Your task to perform on an android device: Go to settings Image 0: 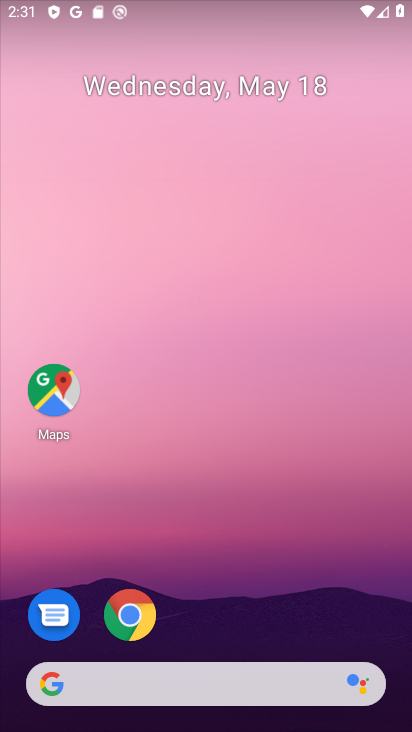
Step 0: drag from (210, 637) to (215, 213)
Your task to perform on an android device: Go to settings Image 1: 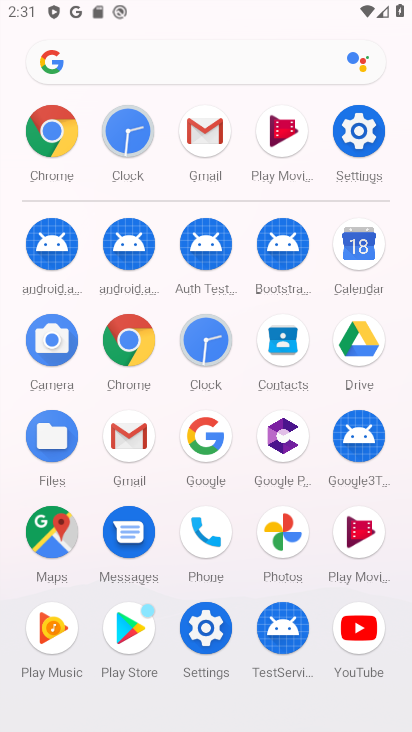
Step 1: click (350, 134)
Your task to perform on an android device: Go to settings Image 2: 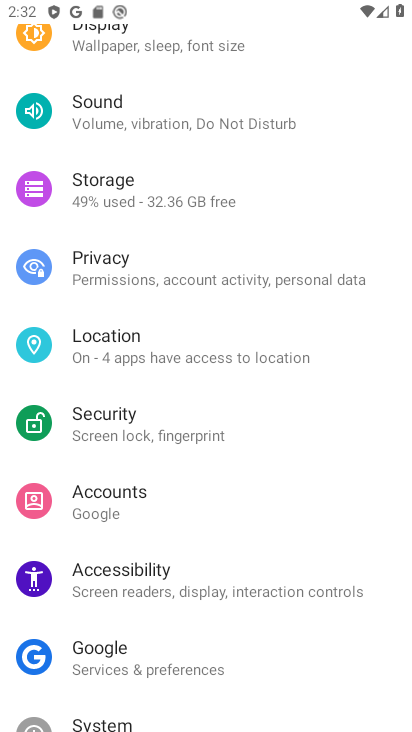
Step 2: task complete